Your task to perform on an android device: turn on translation in the chrome app Image 0: 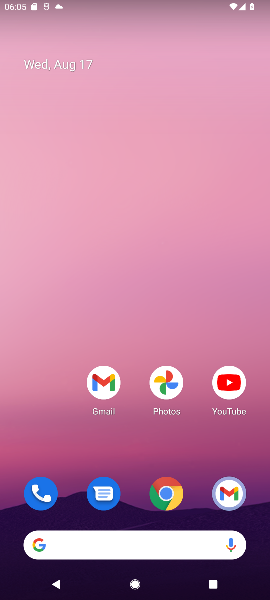
Step 0: click (176, 495)
Your task to perform on an android device: turn on translation in the chrome app Image 1: 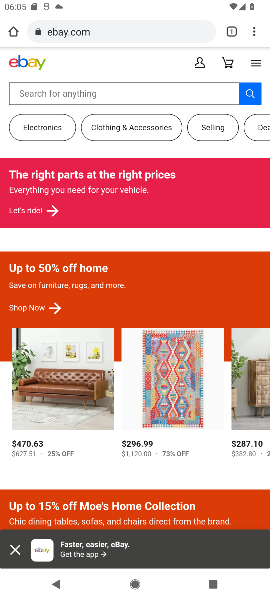
Step 1: press home button
Your task to perform on an android device: turn on translation in the chrome app Image 2: 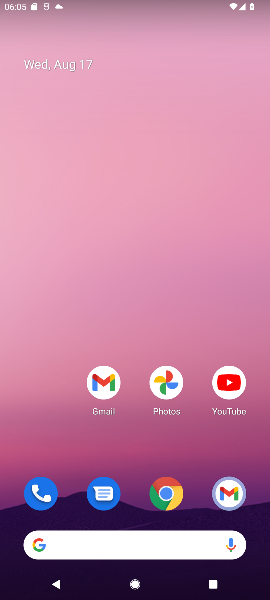
Step 2: drag from (128, 511) to (170, 112)
Your task to perform on an android device: turn on translation in the chrome app Image 3: 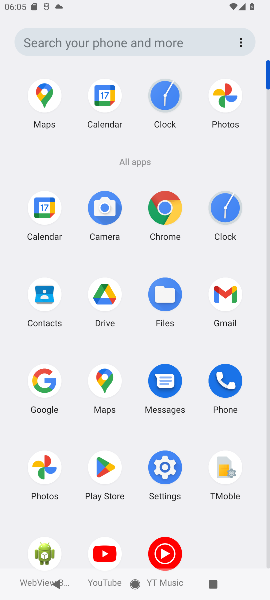
Step 3: click (158, 200)
Your task to perform on an android device: turn on translation in the chrome app Image 4: 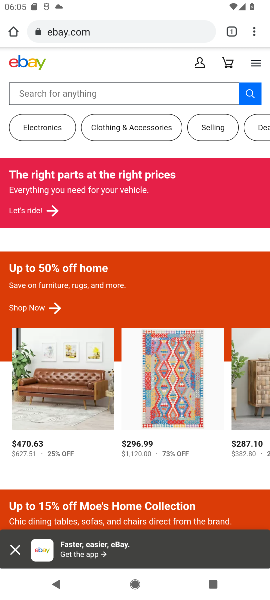
Step 4: drag from (250, 32) to (179, 416)
Your task to perform on an android device: turn on translation in the chrome app Image 5: 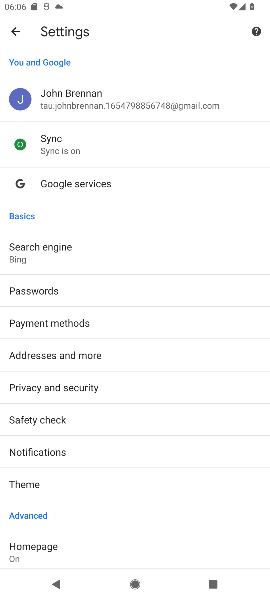
Step 5: drag from (172, 500) to (168, 204)
Your task to perform on an android device: turn on translation in the chrome app Image 6: 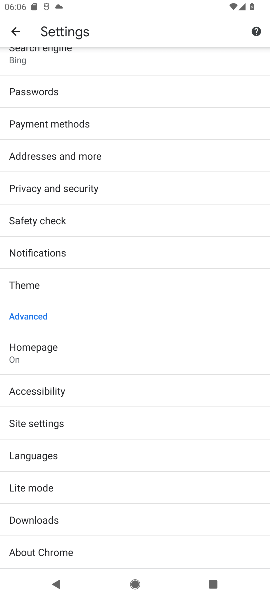
Step 6: click (34, 456)
Your task to perform on an android device: turn on translation in the chrome app Image 7: 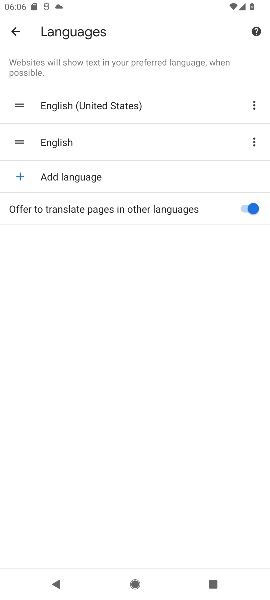
Step 7: task complete